Your task to perform on an android device: toggle sleep mode Image 0: 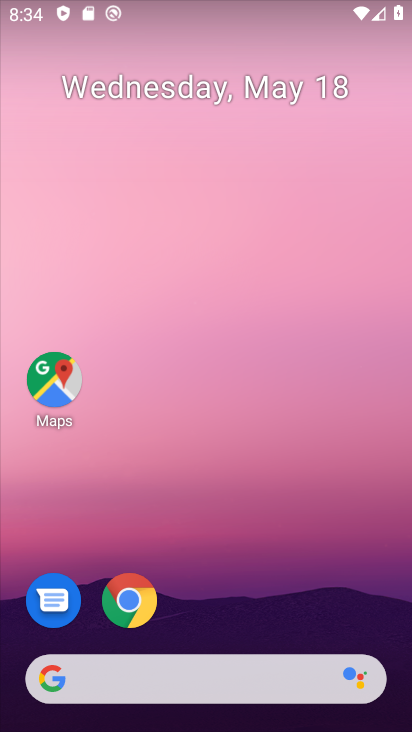
Step 0: drag from (87, 527) to (290, 146)
Your task to perform on an android device: toggle sleep mode Image 1: 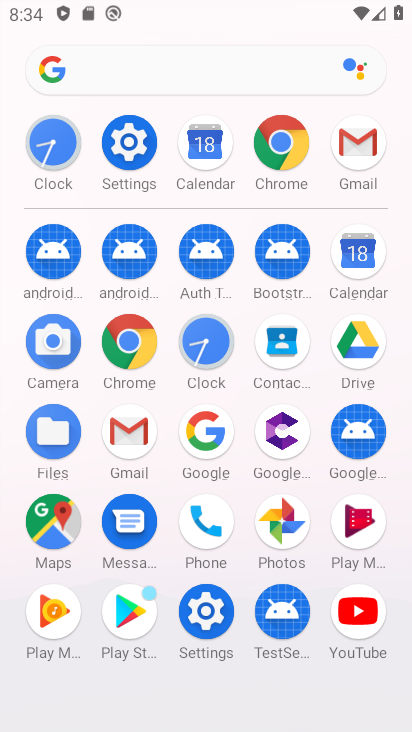
Step 1: click (128, 145)
Your task to perform on an android device: toggle sleep mode Image 2: 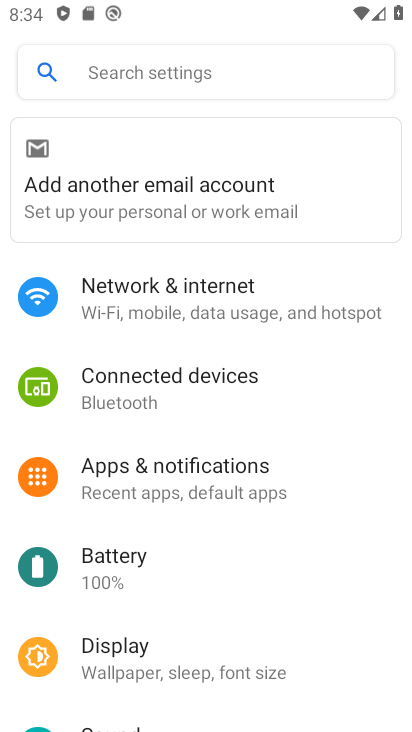
Step 2: task complete